Your task to perform on an android device: turn off wifi Image 0: 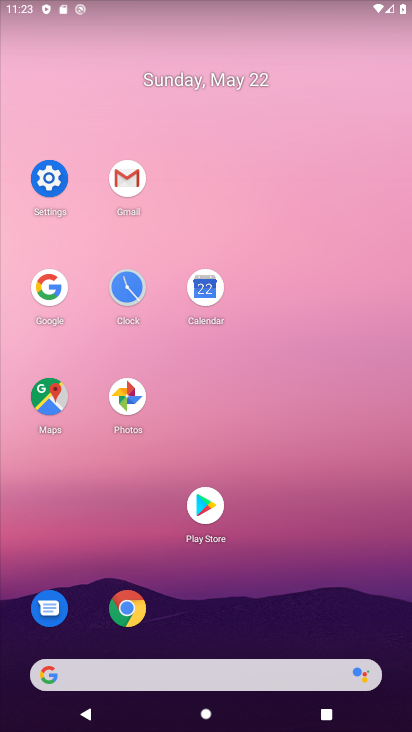
Step 0: click (62, 177)
Your task to perform on an android device: turn off wifi Image 1: 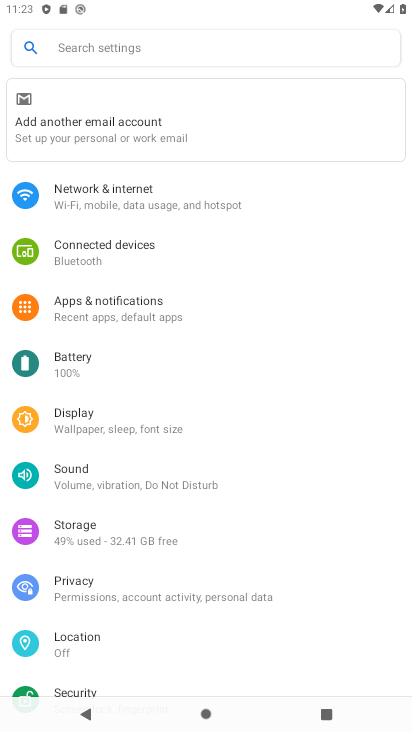
Step 1: click (210, 208)
Your task to perform on an android device: turn off wifi Image 2: 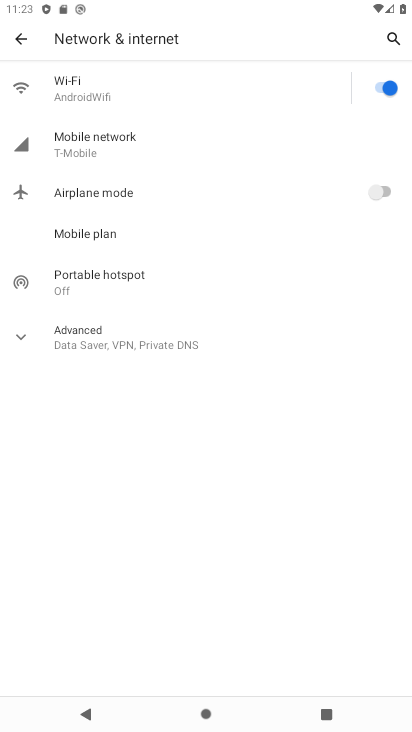
Step 2: click (369, 86)
Your task to perform on an android device: turn off wifi Image 3: 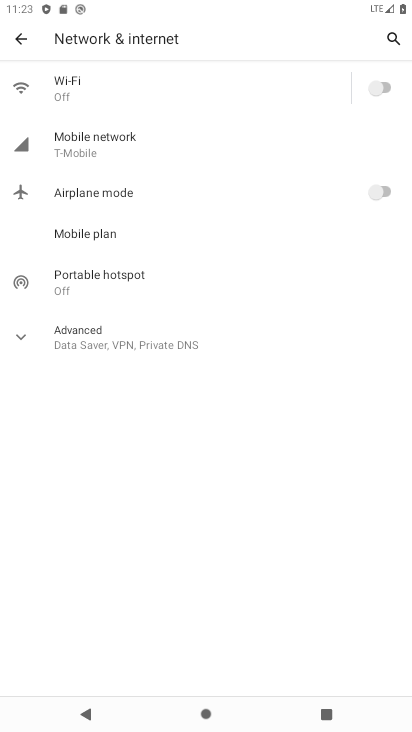
Step 3: task complete